Your task to perform on an android device: choose inbox layout in the gmail app Image 0: 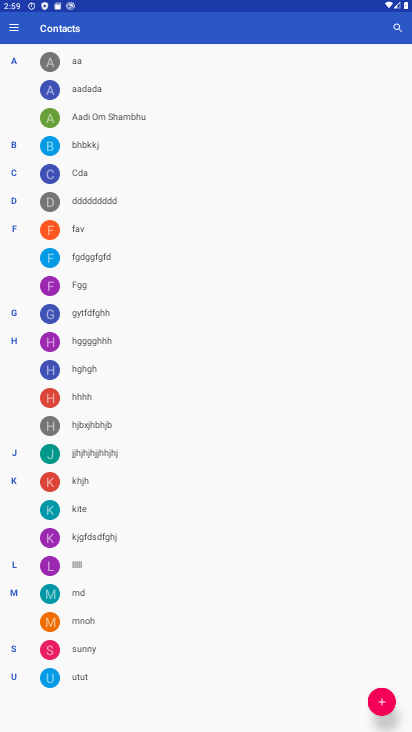
Step 0: press home button
Your task to perform on an android device: choose inbox layout in the gmail app Image 1: 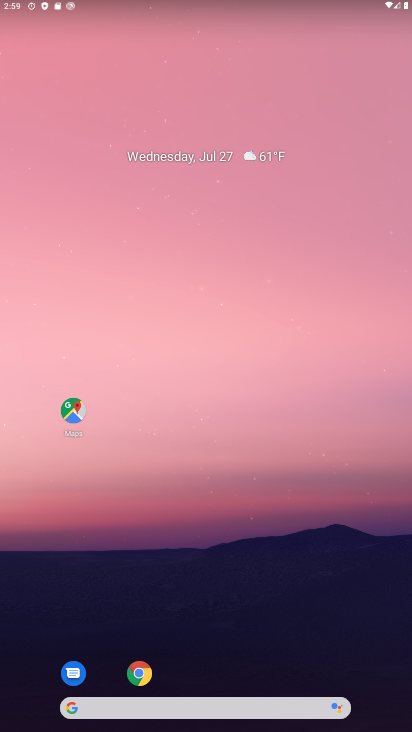
Step 1: drag from (38, 670) to (205, 108)
Your task to perform on an android device: choose inbox layout in the gmail app Image 2: 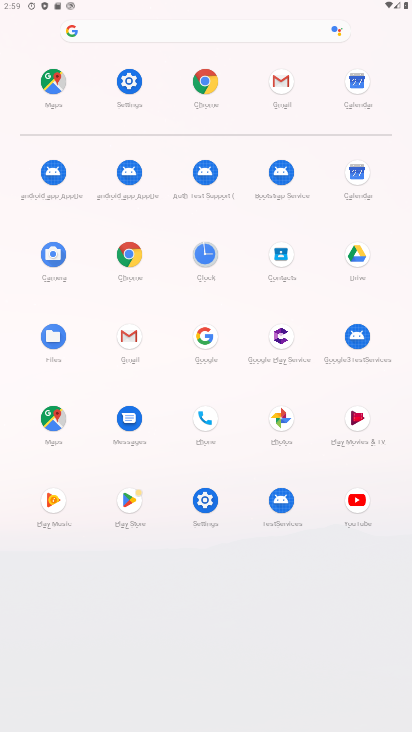
Step 2: click (126, 341)
Your task to perform on an android device: choose inbox layout in the gmail app Image 3: 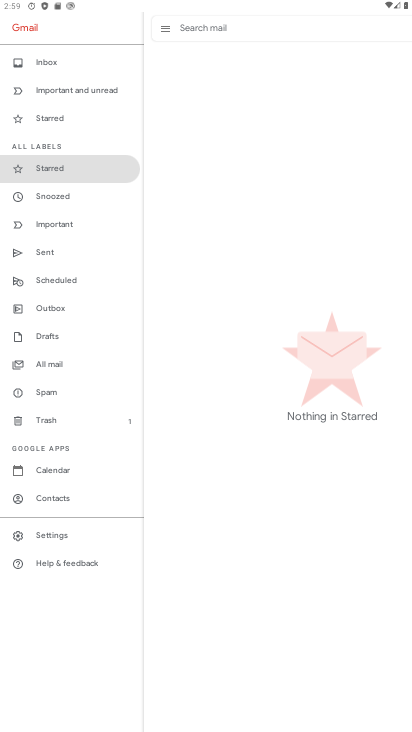
Step 3: click (61, 66)
Your task to perform on an android device: choose inbox layout in the gmail app Image 4: 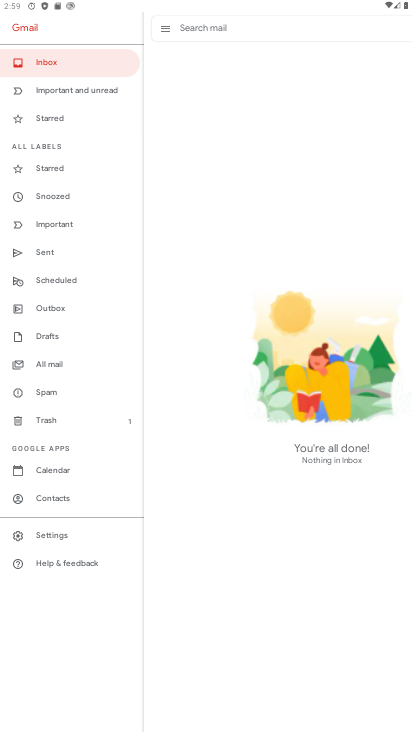
Step 4: task complete